Your task to perform on an android device: change keyboard looks Image 0: 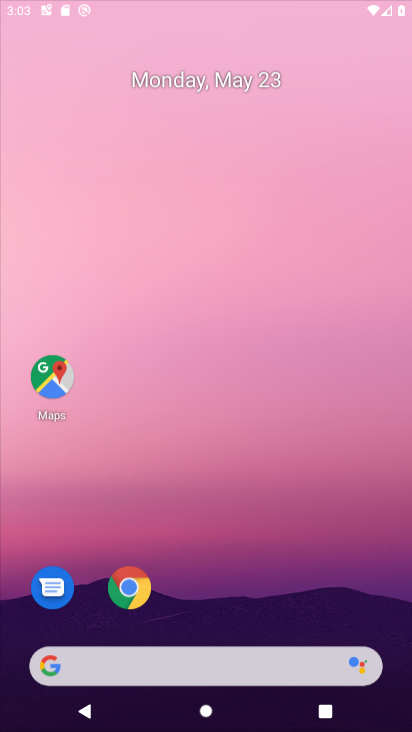
Step 0: drag from (176, 626) to (281, 94)
Your task to perform on an android device: change keyboard looks Image 1: 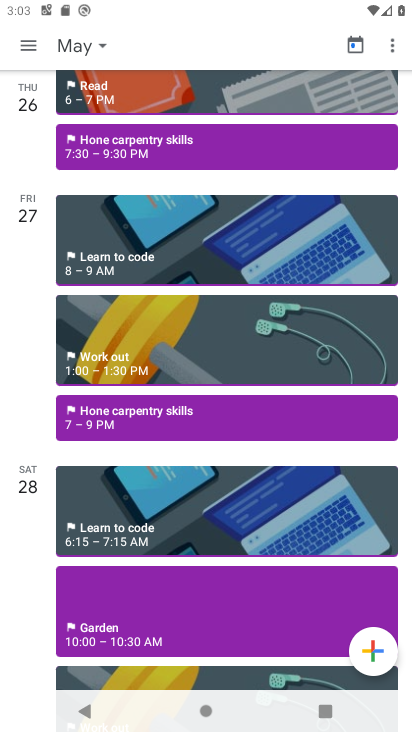
Step 1: press home button
Your task to perform on an android device: change keyboard looks Image 2: 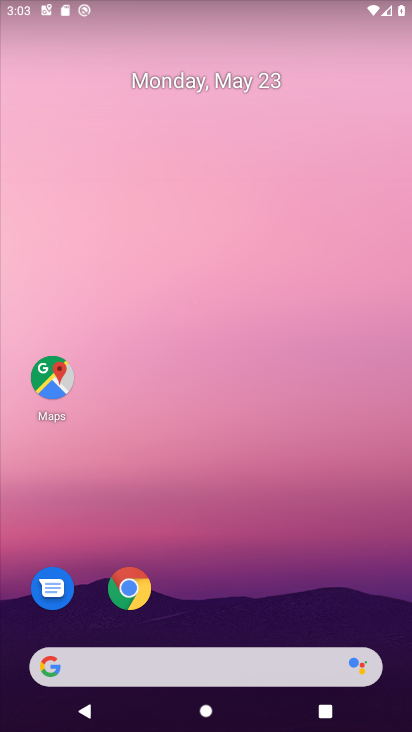
Step 2: drag from (199, 575) to (292, 172)
Your task to perform on an android device: change keyboard looks Image 3: 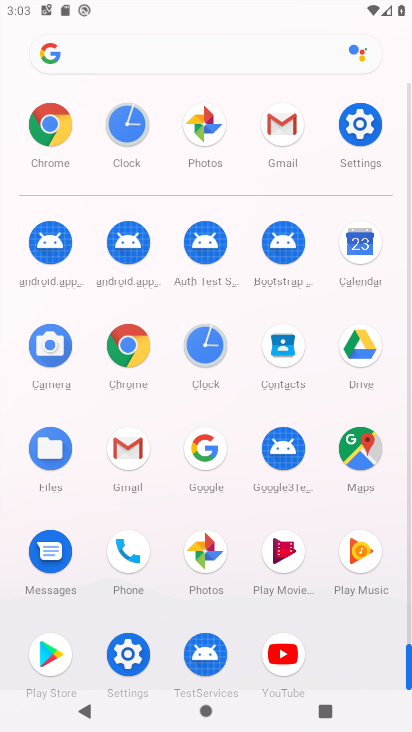
Step 3: click (350, 124)
Your task to perform on an android device: change keyboard looks Image 4: 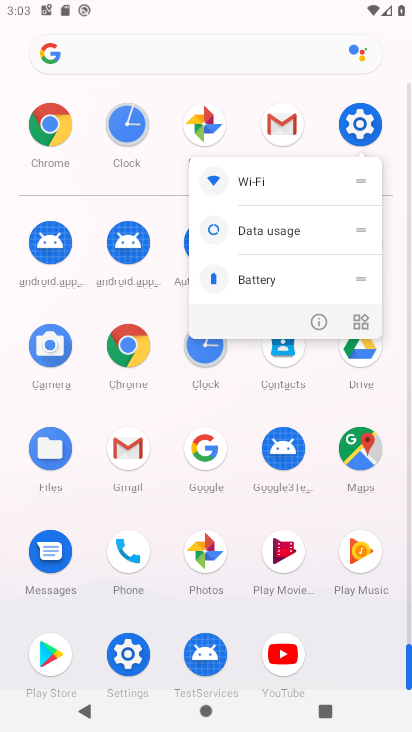
Step 4: click (315, 324)
Your task to perform on an android device: change keyboard looks Image 5: 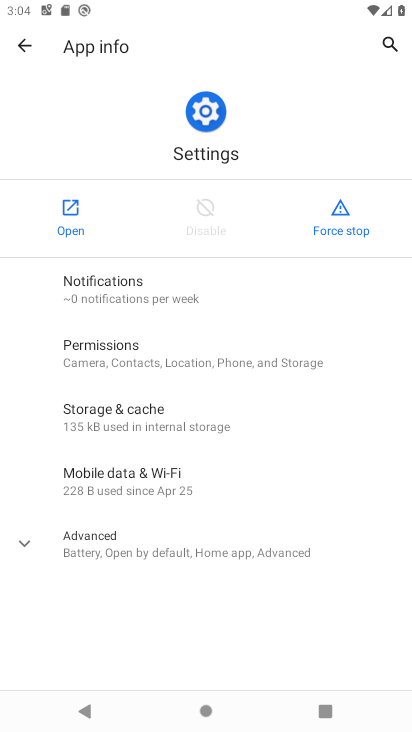
Step 5: click (54, 210)
Your task to perform on an android device: change keyboard looks Image 6: 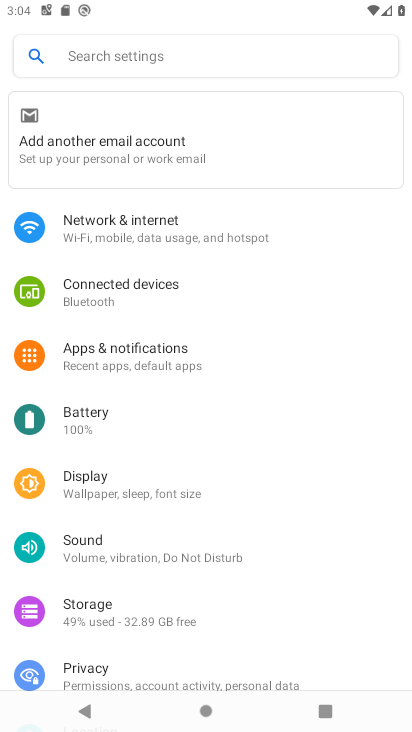
Step 6: drag from (193, 587) to (302, 47)
Your task to perform on an android device: change keyboard looks Image 7: 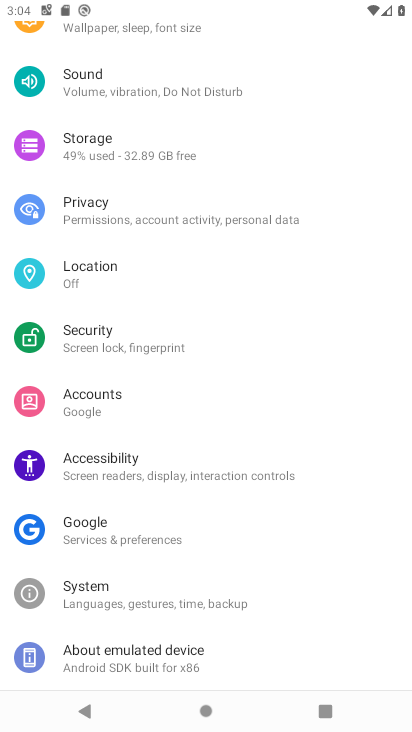
Step 7: click (147, 601)
Your task to perform on an android device: change keyboard looks Image 8: 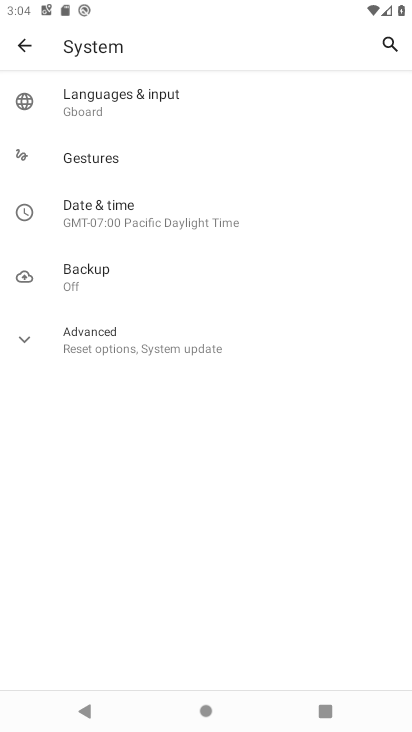
Step 8: click (109, 108)
Your task to perform on an android device: change keyboard looks Image 9: 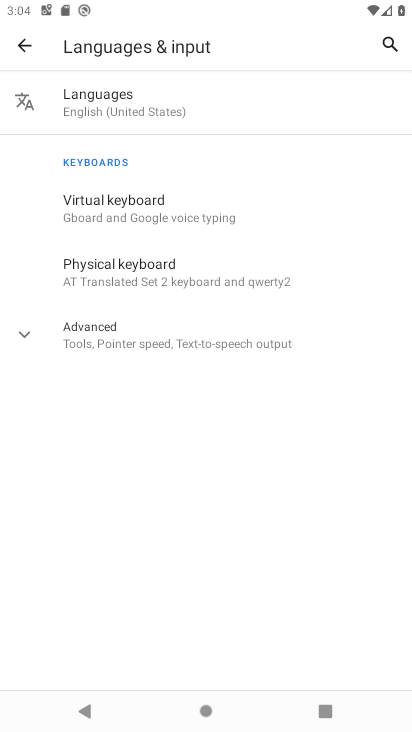
Step 9: click (143, 214)
Your task to perform on an android device: change keyboard looks Image 10: 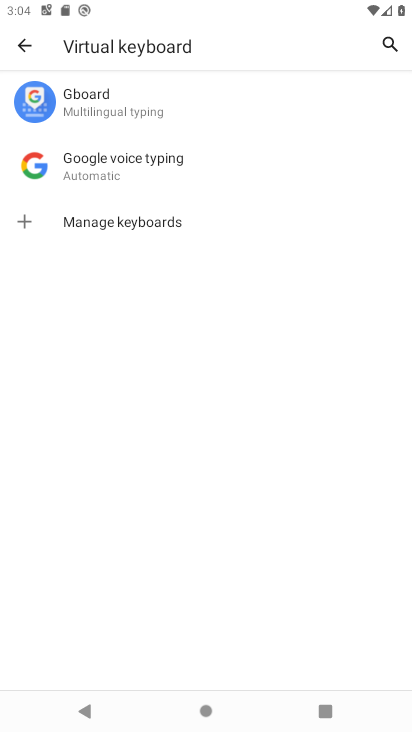
Step 10: click (162, 100)
Your task to perform on an android device: change keyboard looks Image 11: 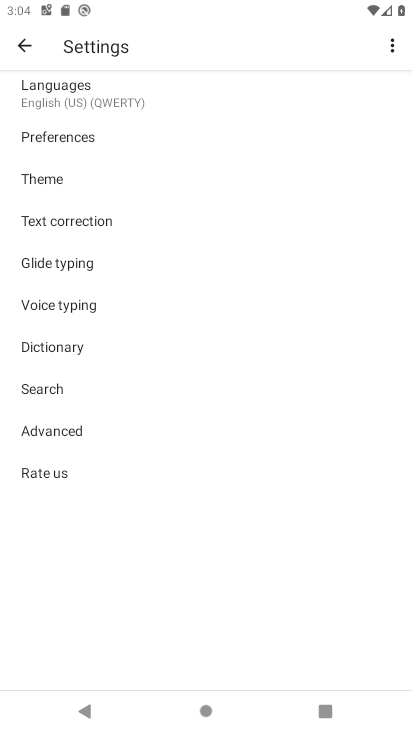
Step 11: click (82, 168)
Your task to perform on an android device: change keyboard looks Image 12: 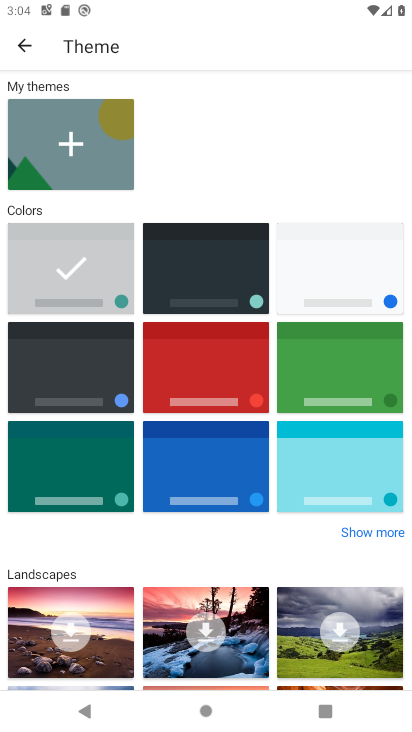
Step 12: click (202, 235)
Your task to perform on an android device: change keyboard looks Image 13: 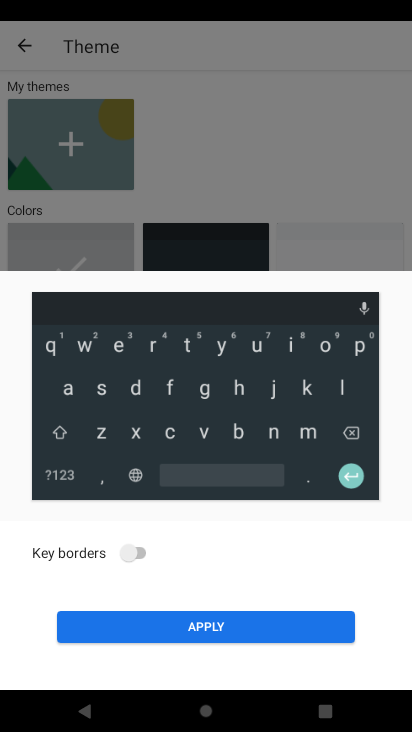
Step 13: click (186, 625)
Your task to perform on an android device: change keyboard looks Image 14: 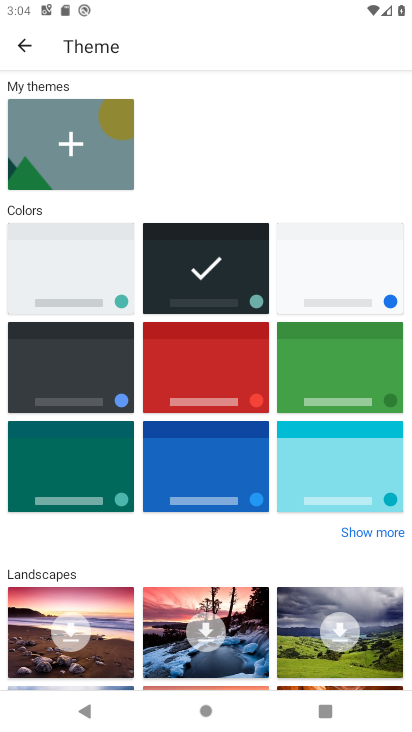
Step 14: task complete